Your task to perform on an android device: Open settings on Google Maps Image 0: 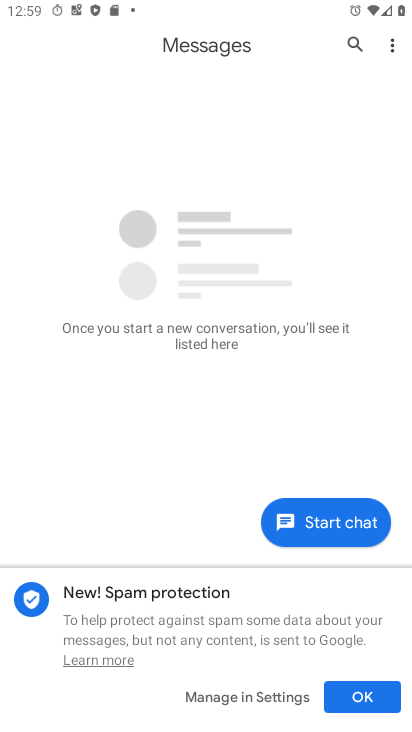
Step 0: press home button
Your task to perform on an android device: Open settings on Google Maps Image 1: 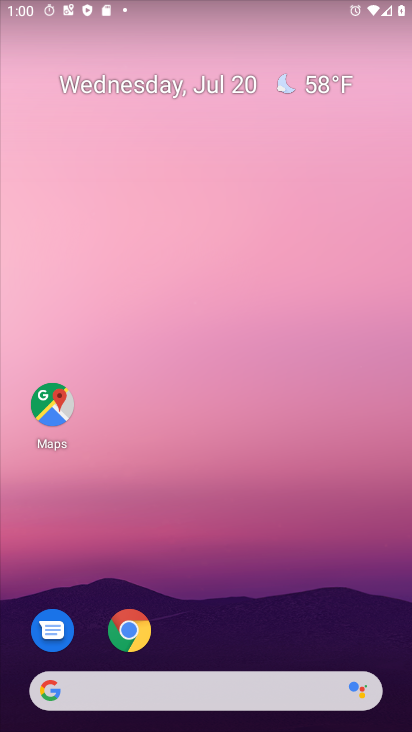
Step 1: click (52, 415)
Your task to perform on an android device: Open settings on Google Maps Image 2: 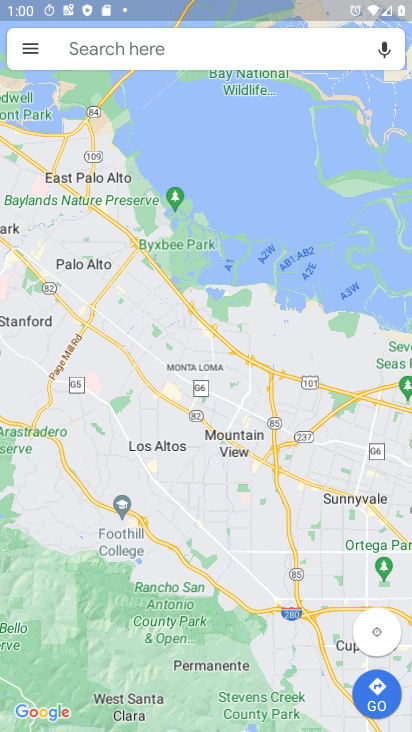
Step 2: click (34, 41)
Your task to perform on an android device: Open settings on Google Maps Image 3: 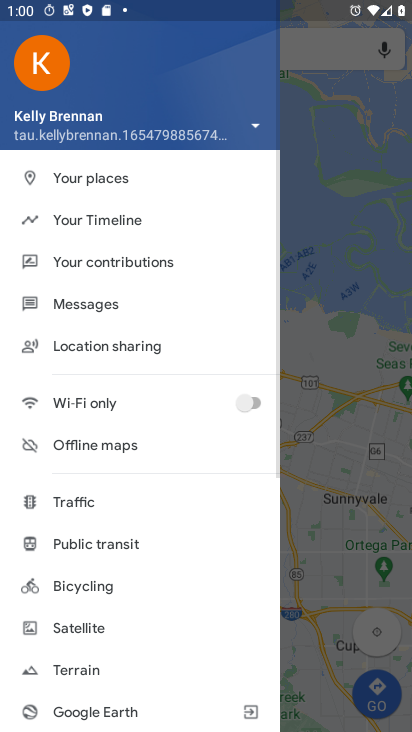
Step 3: drag from (135, 602) to (194, 69)
Your task to perform on an android device: Open settings on Google Maps Image 4: 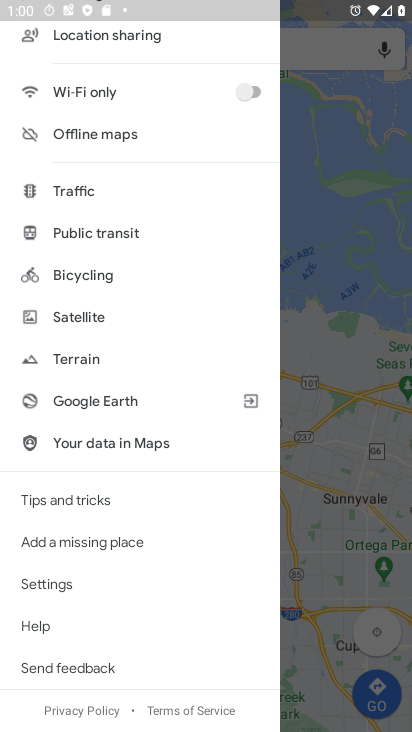
Step 4: click (68, 584)
Your task to perform on an android device: Open settings on Google Maps Image 5: 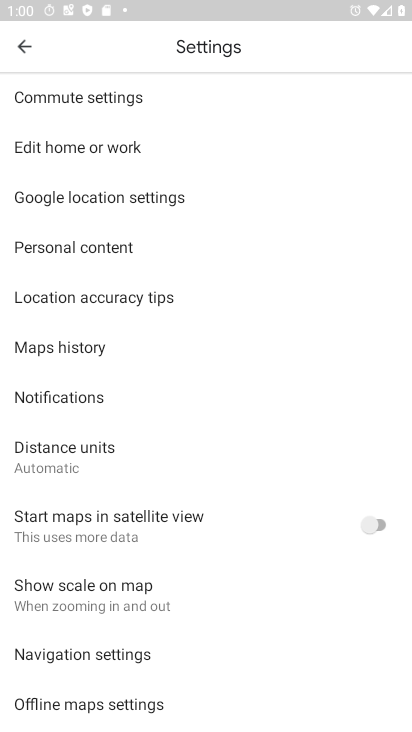
Step 5: task complete